Your task to perform on an android device: set the stopwatch Image 0: 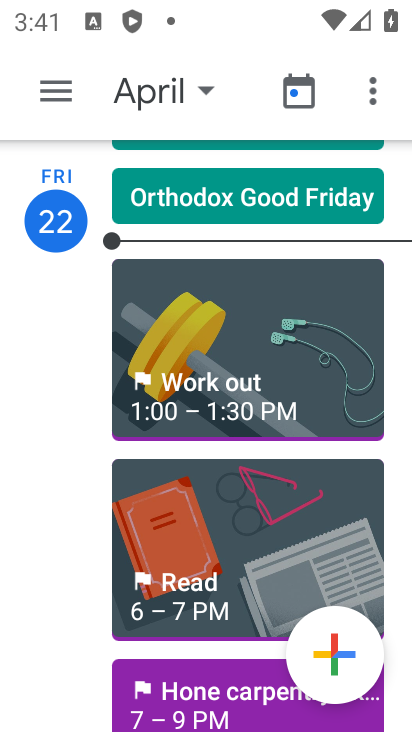
Step 0: press home button
Your task to perform on an android device: set the stopwatch Image 1: 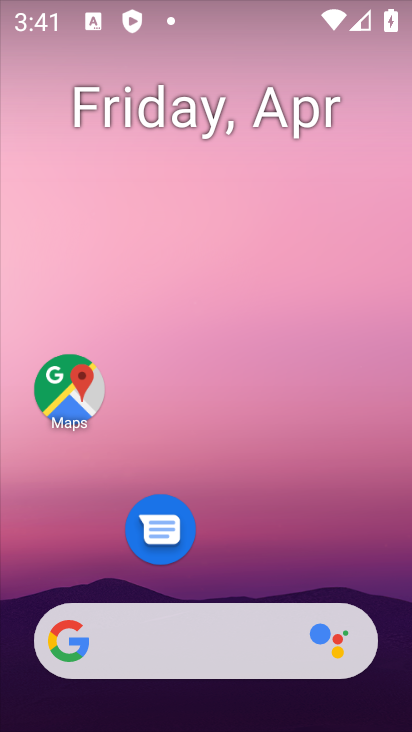
Step 1: drag from (246, 620) to (278, 394)
Your task to perform on an android device: set the stopwatch Image 2: 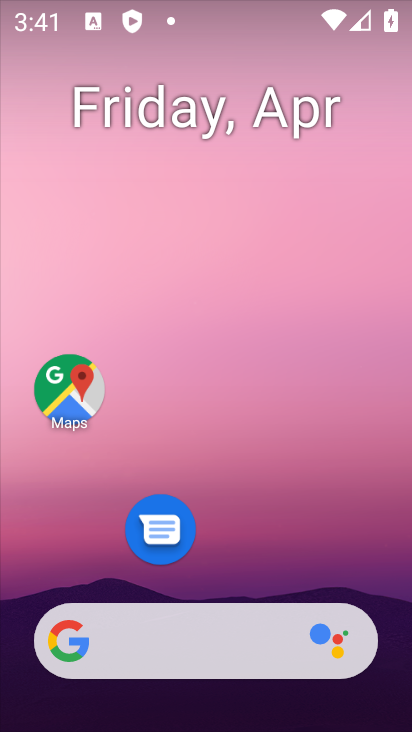
Step 2: drag from (277, 663) to (297, 31)
Your task to perform on an android device: set the stopwatch Image 3: 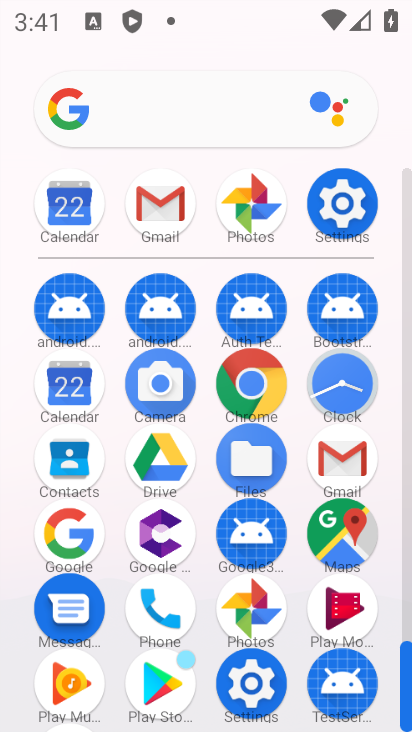
Step 3: click (332, 387)
Your task to perform on an android device: set the stopwatch Image 4: 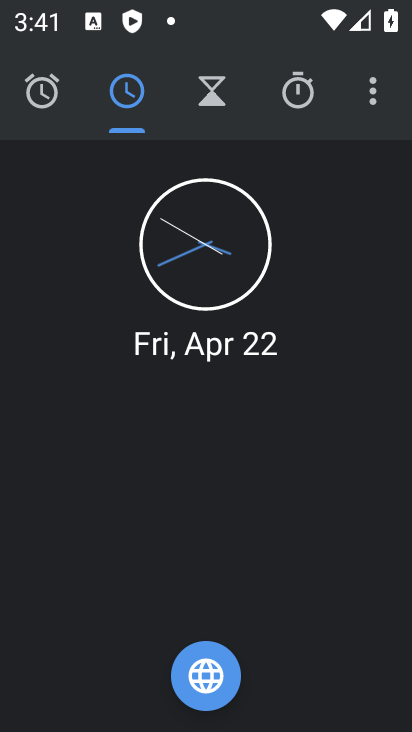
Step 4: click (294, 98)
Your task to perform on an android device: set the stopwatch Image 5: 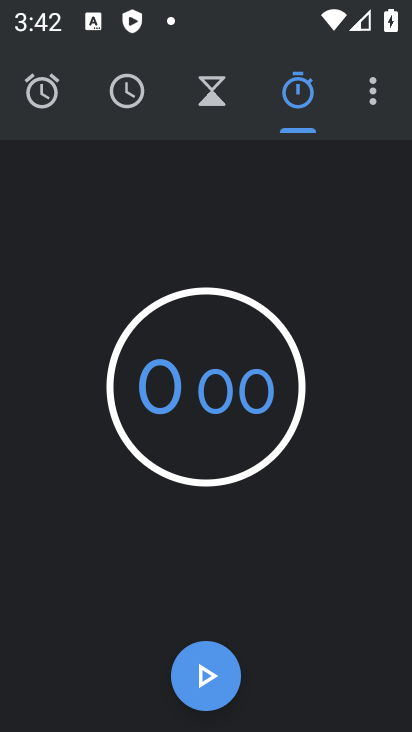
Step 5: click (215, 693)
Your task to perform on an android device: set the stopwatch Image 6: 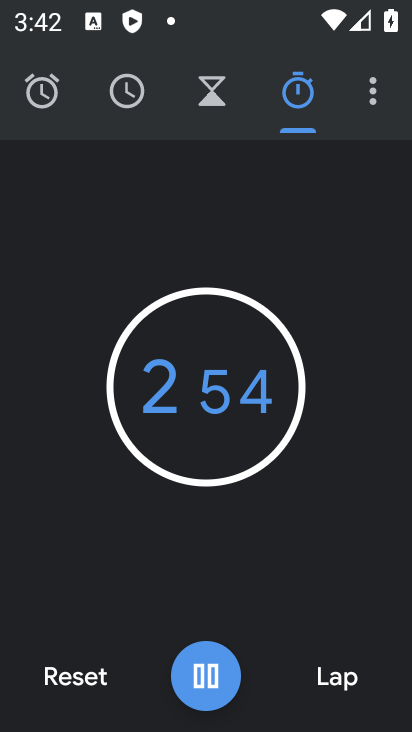
Step 6: task complete